Your task to perform on an android device: What time is it in Sydney? Image 0: 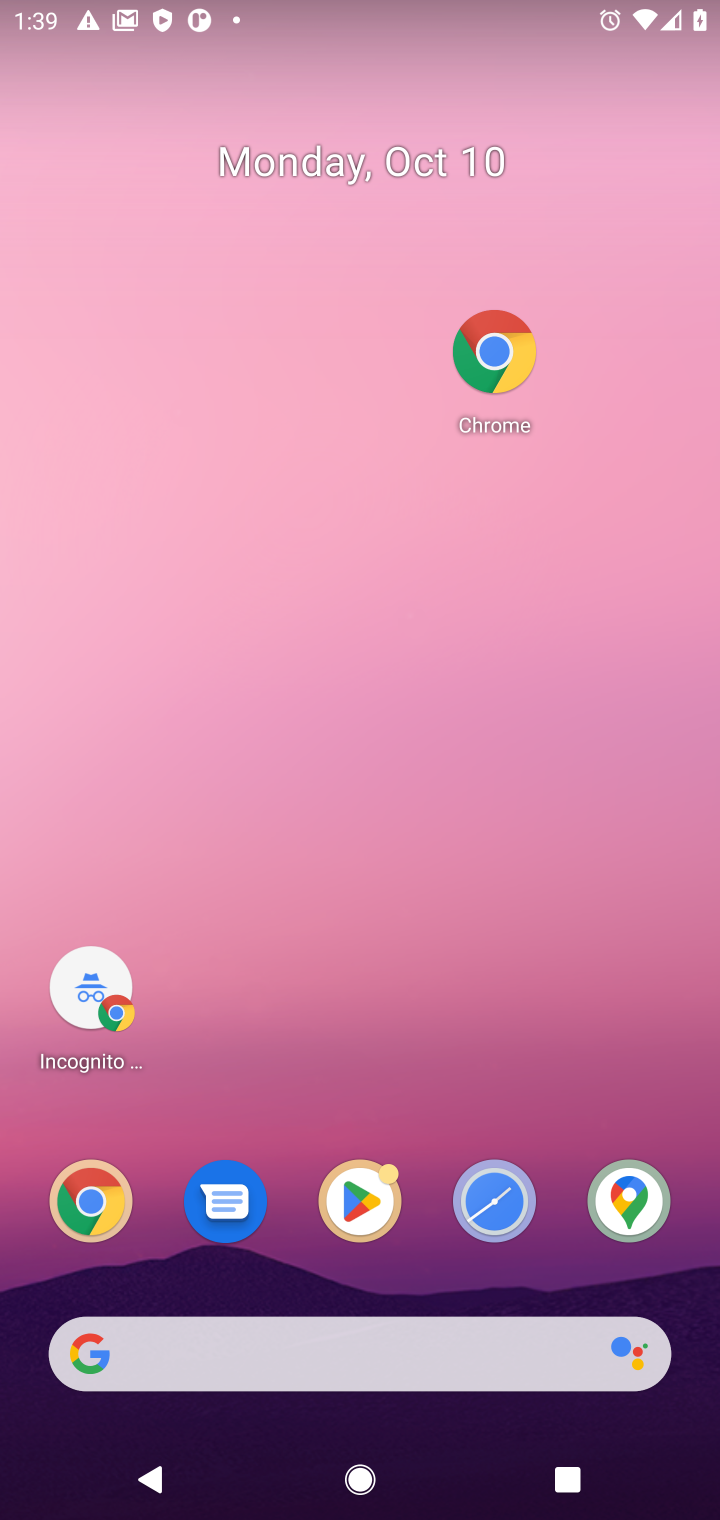
Step 0: click (491, 349)
Your task to perform on an android device: What time is it in Sydney? Image 1: 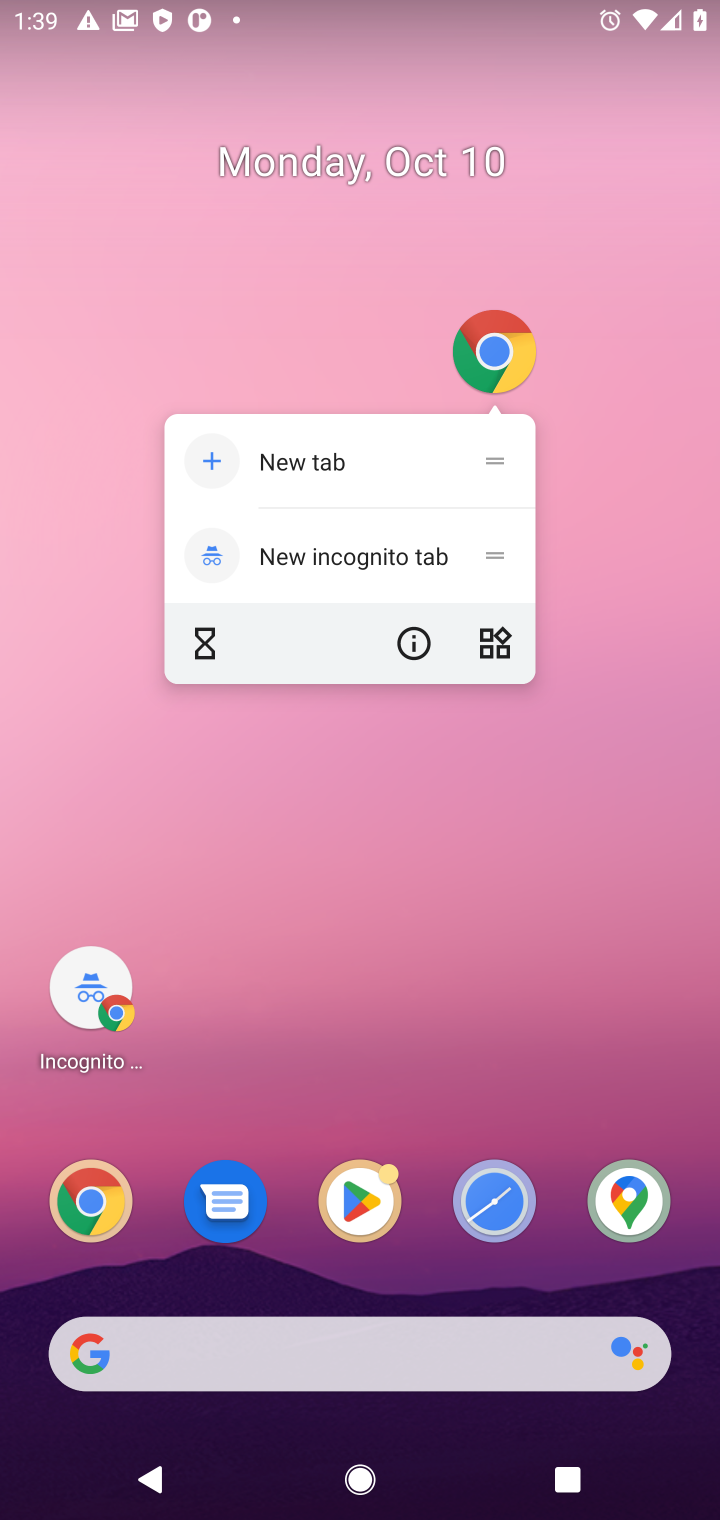
Step 1: click (491, 358)
Your task to perform on an android device: What time is it in Sydney? Image 2: 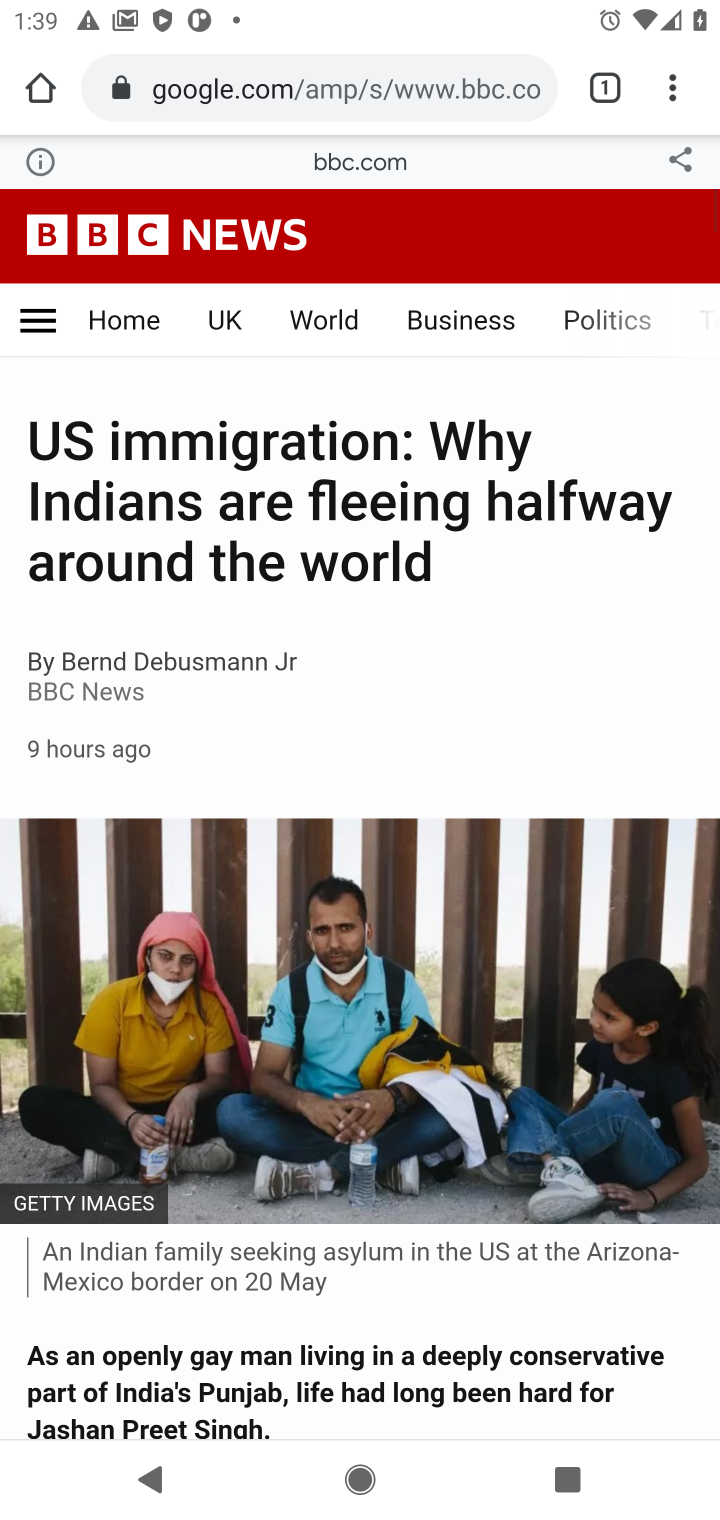
Step 2: click (246, 96)
Your task to perform on an android device: What time is it in Sydney? Image 3: 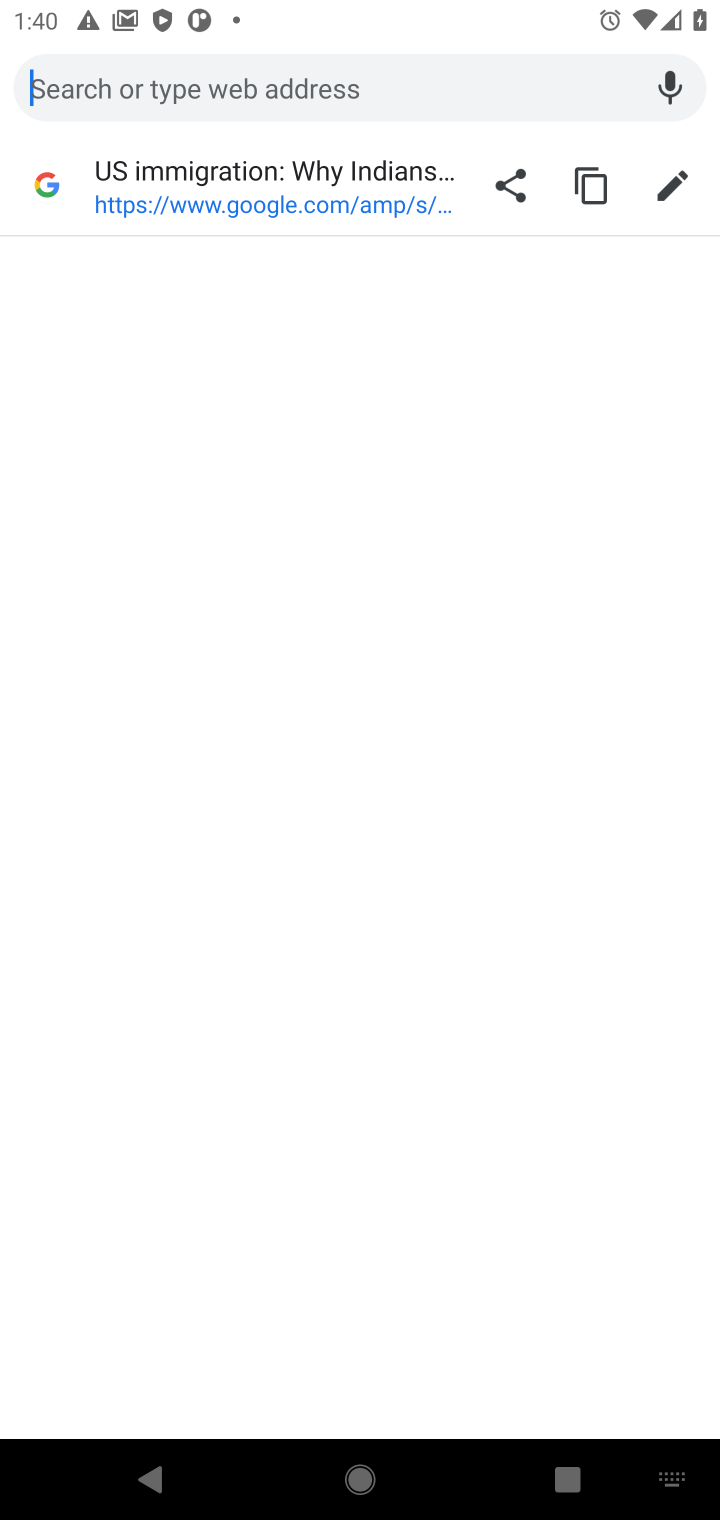
Step 3: type "time in sydney"
Your task to perform on an android device: What time is it in Sydney? Image 4: 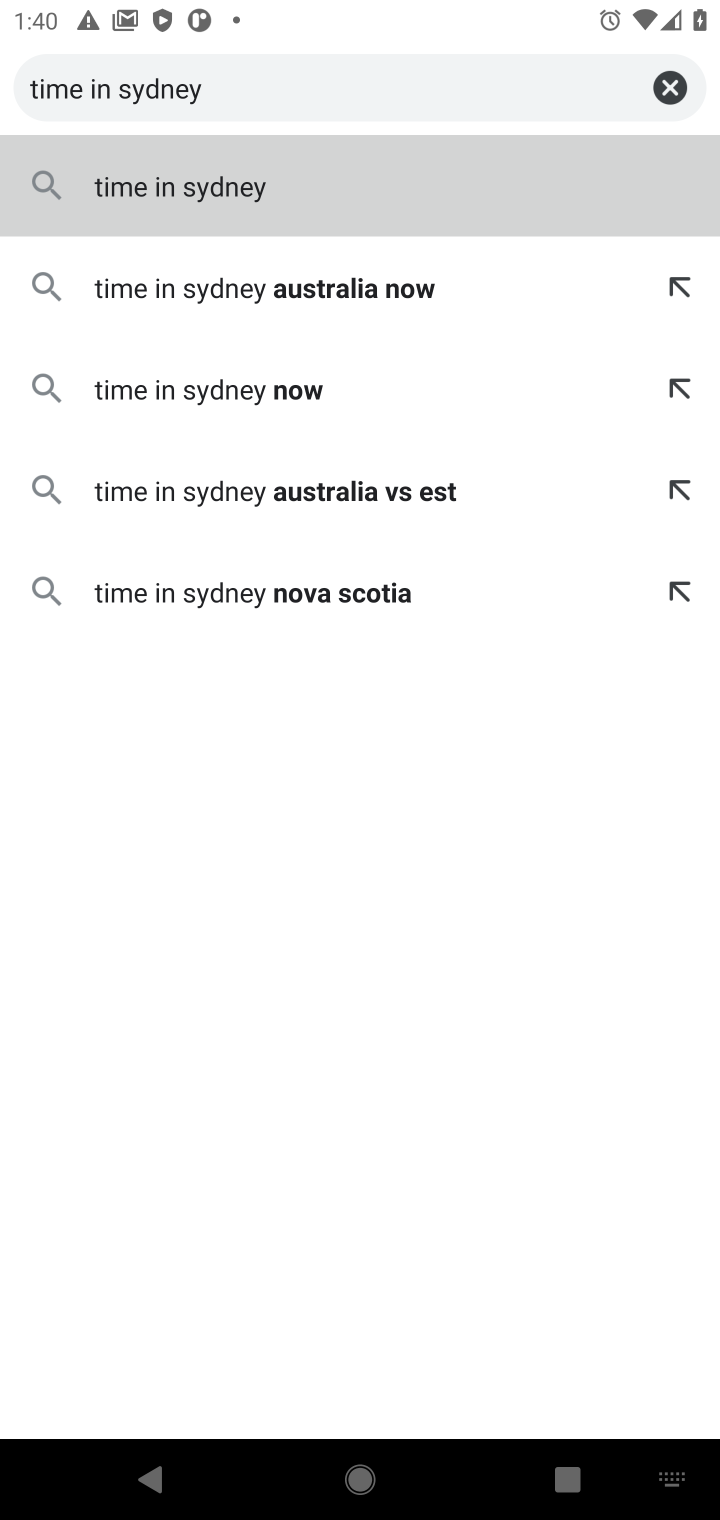
Step 4: click (129, 203)
Your task to perform on an android device: What time is it in Sydney? Image 5: 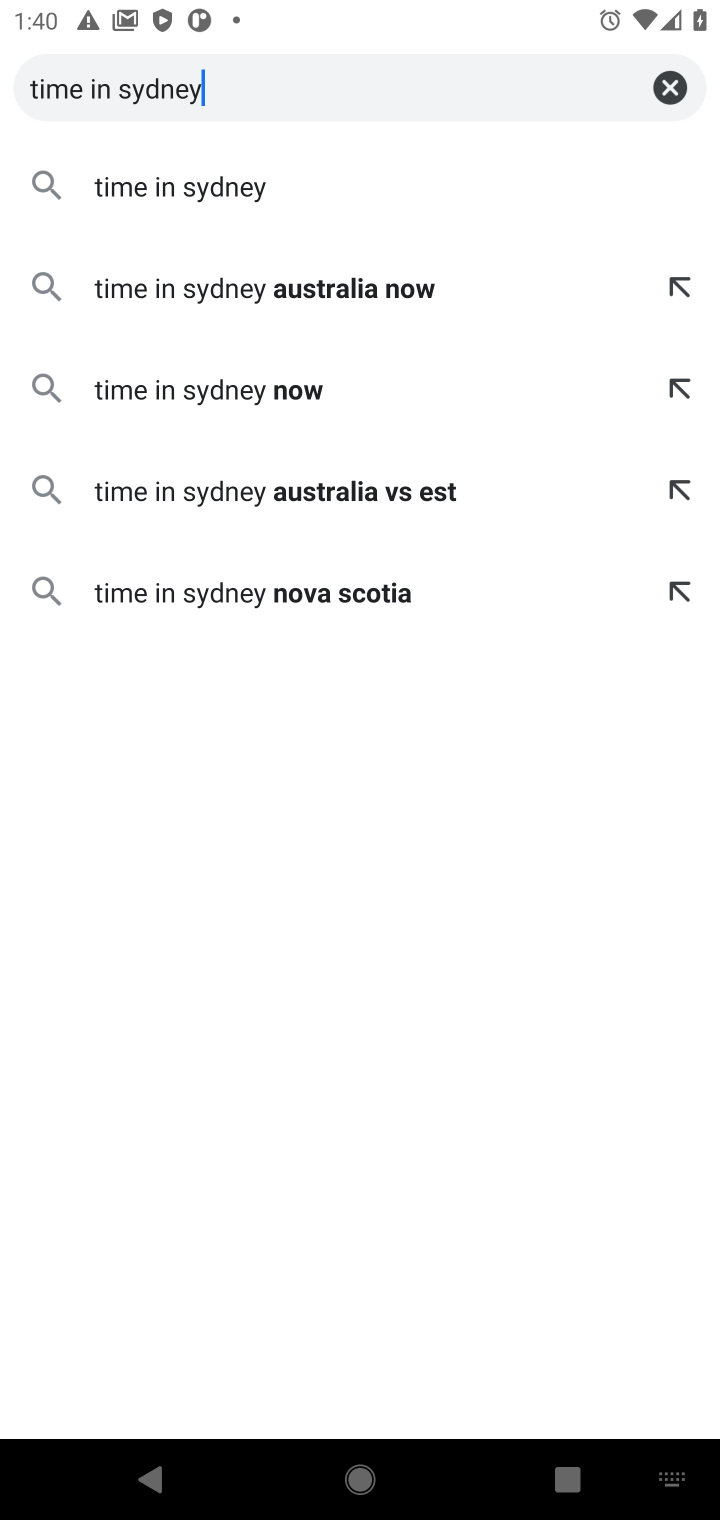
Step 5: click (195, 191)
Your task to perform on an android device: What time is it in Sydney? Image 6: 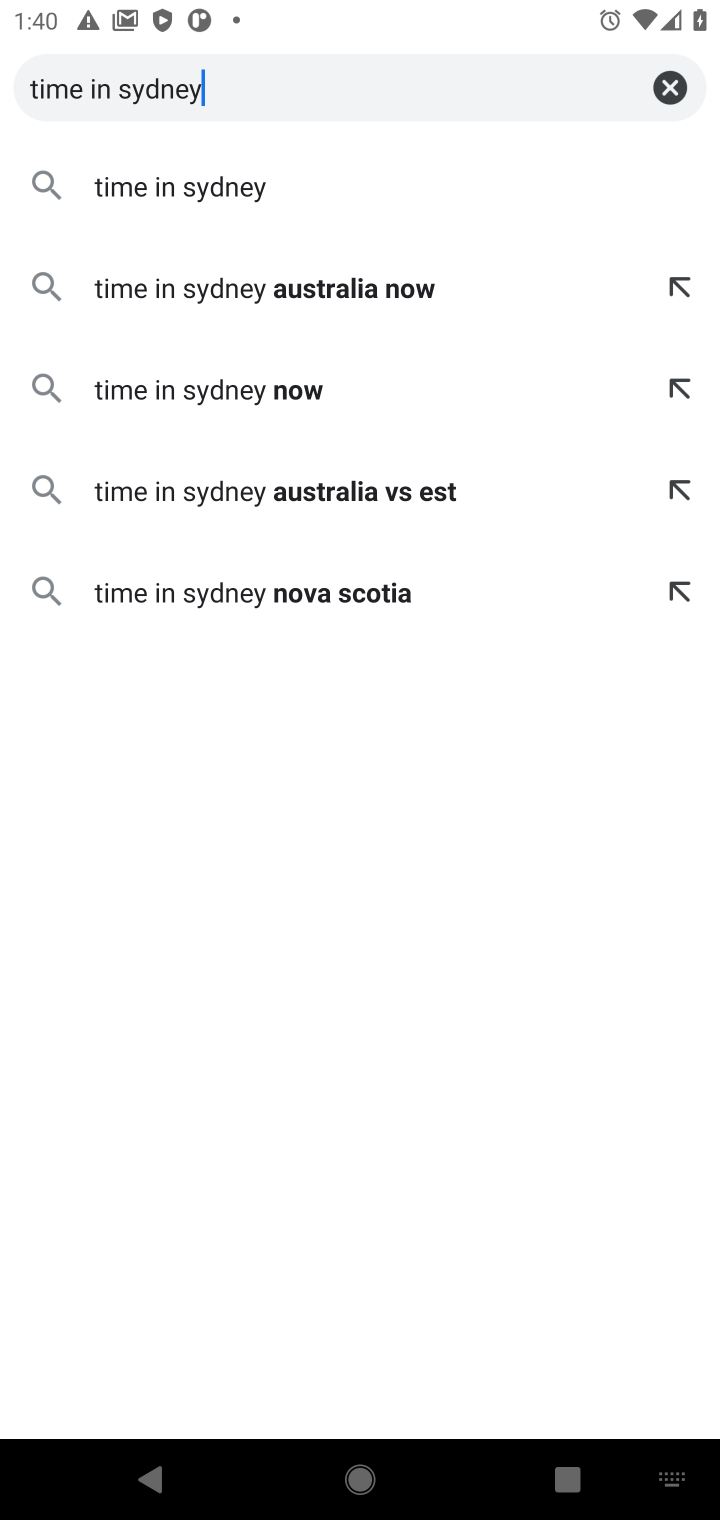
Step 6: click (145, 202)
Your task to perform on an android device: What time is it in Sydney? Image 7: 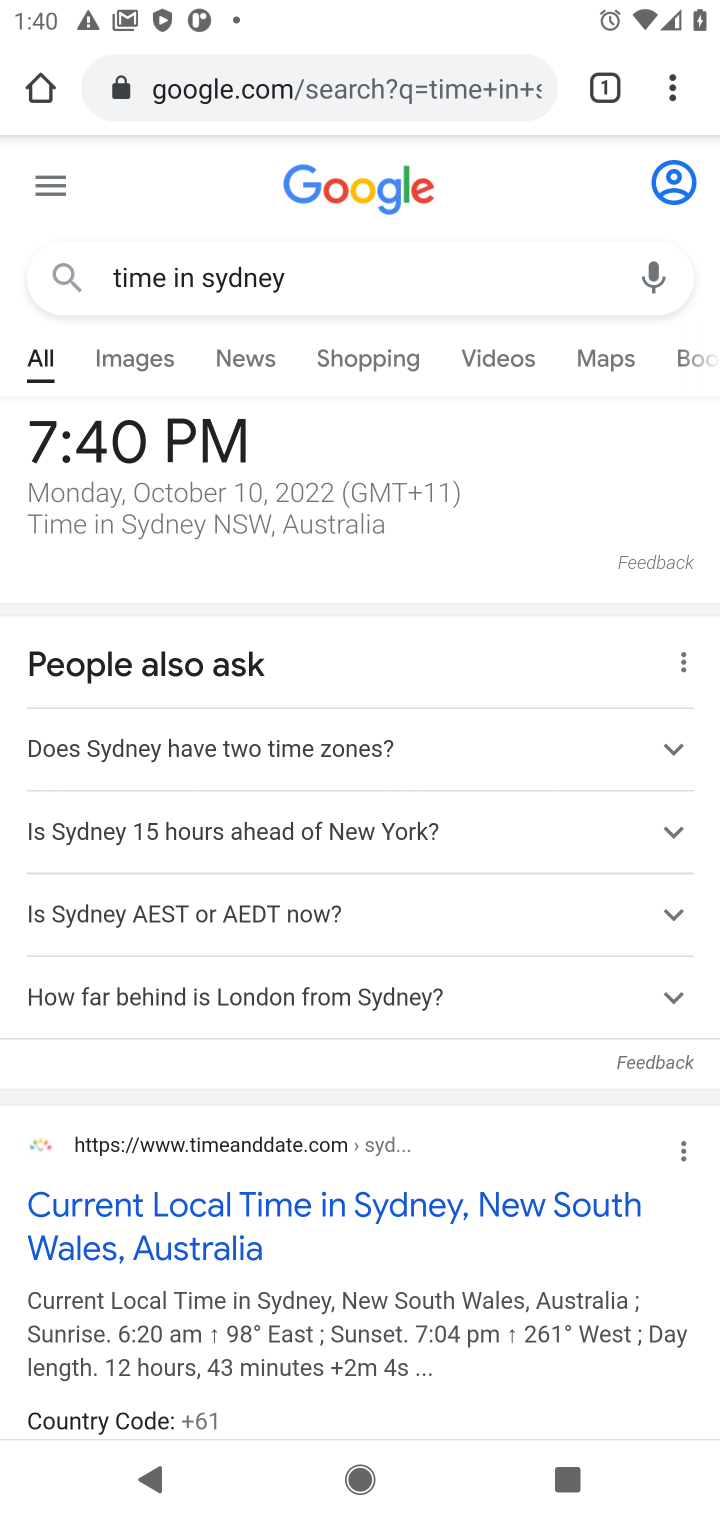
Step 7: task complete